Your task to perform on an android device: add a contact in the contacts app Image 0: 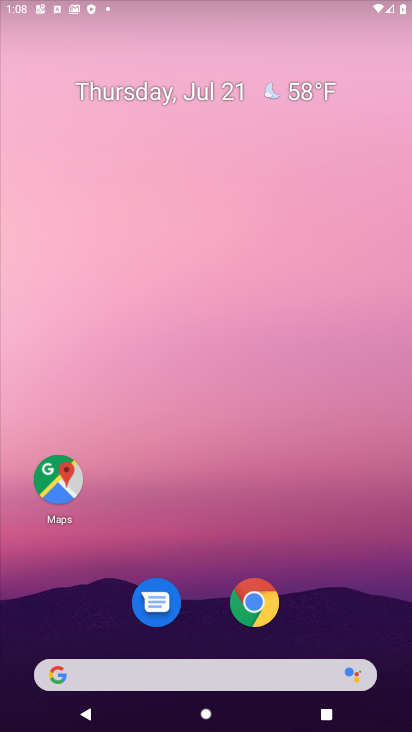
Step 0: drag from (395, 648) to (123, 16)
Your task to perform on an android device: add a contact in the contacts app Image 1: 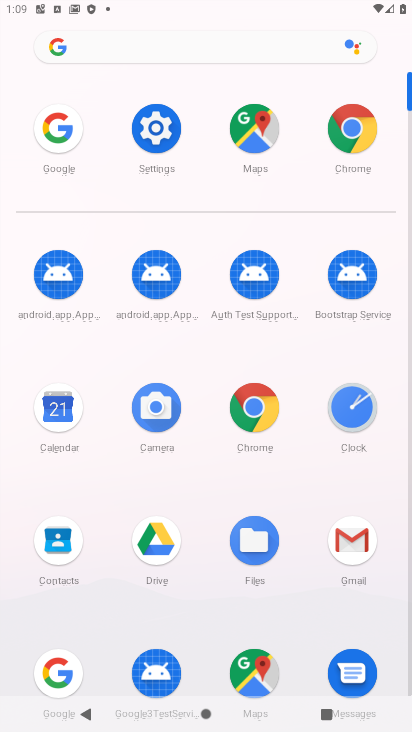
Step 1: click (59, 533)
Your task to perform on an android device: add a contact in the contacts app Image 2: 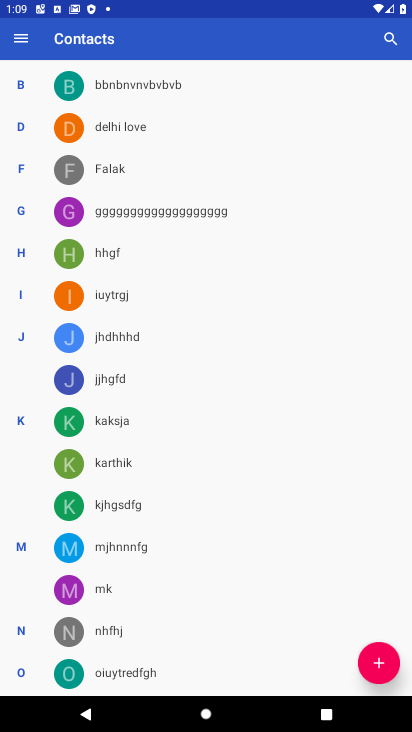
Step 2: click (383, 675)
Your task to perform on an android device: add a contact in the contacts app Image 3: 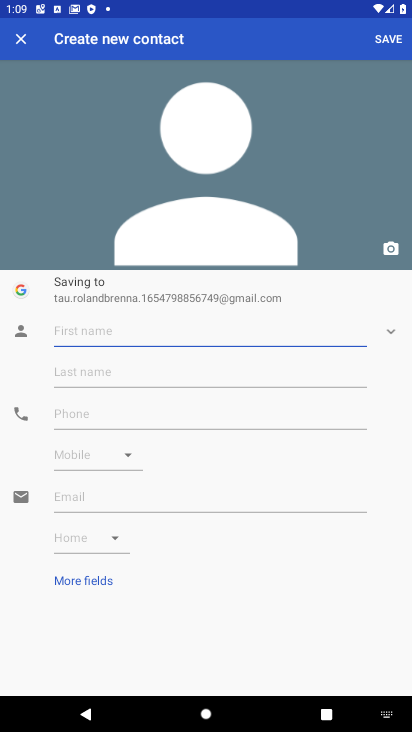
Step 3: type "riya"
Your task to perform on an android device: add a contact in the contacts app Image 4: 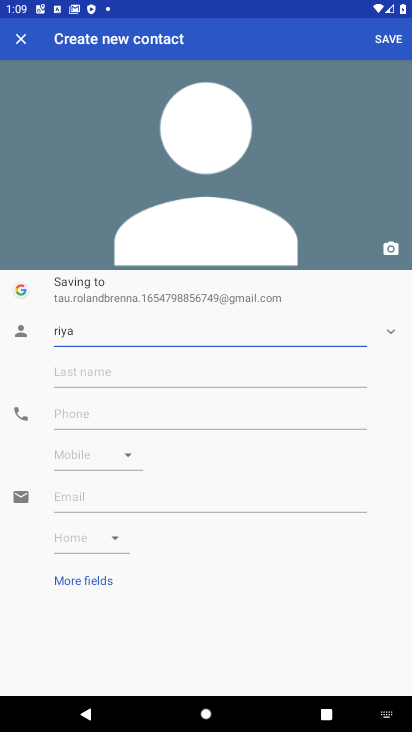
Step 4: click (389, 40)
Your task to perform on an android device: add a contact in the contacts app Image 5: 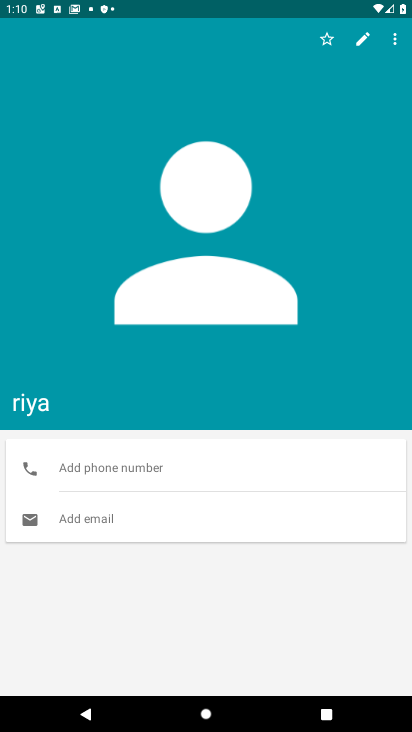
Step 5: task complete